Your task to perform on an android device: check android version Image 0: 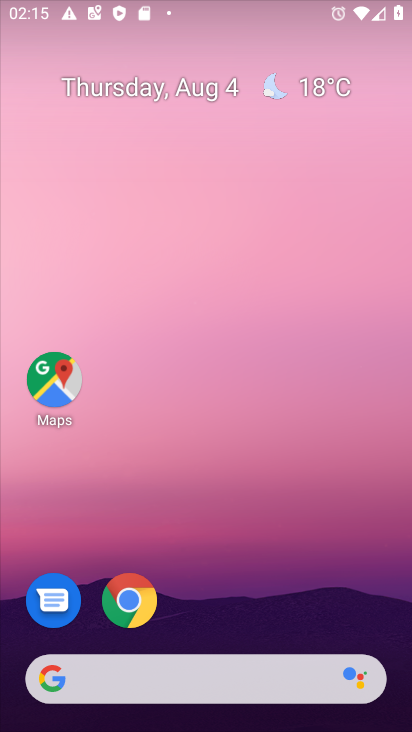
Step 0: drag from (143, 678) to (290, 206)
Your task to perform on an android device: check android version Image 1: 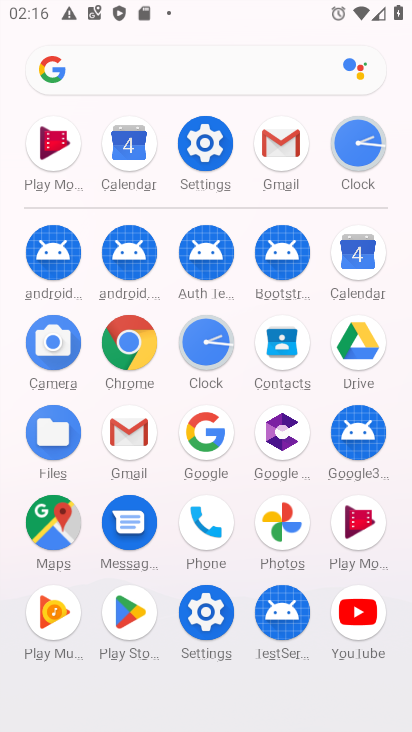
Step 1: click (213, 145)
Your task to perform on an android device: check android version Image 2: 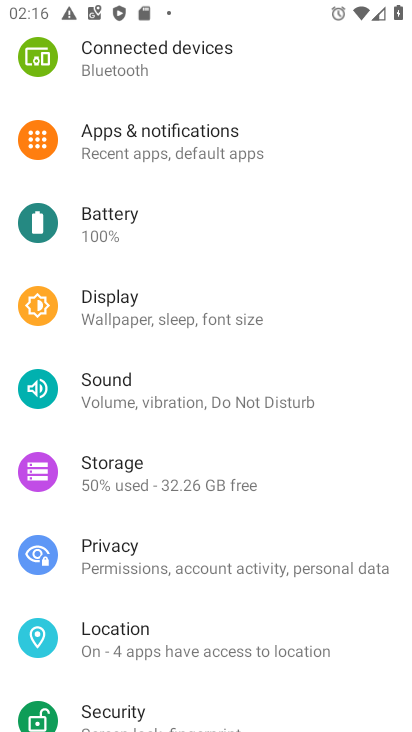
Step 2: drag from (251, 676) to (377, 13)
Your task to perform on an android device: check android version Image 3: 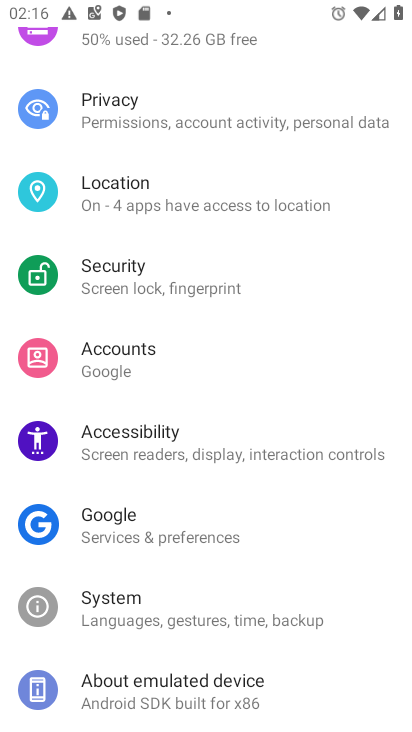
Step 3: drag from (248, 657) to (316, 177)
Your task to perform on an android device: check android version Image 4: 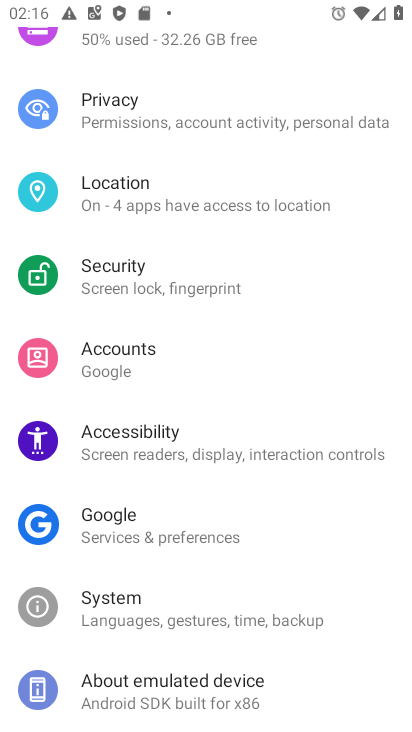
Step 4: click (136, 689)
Your task to perform on an android device: check android version Image 5: 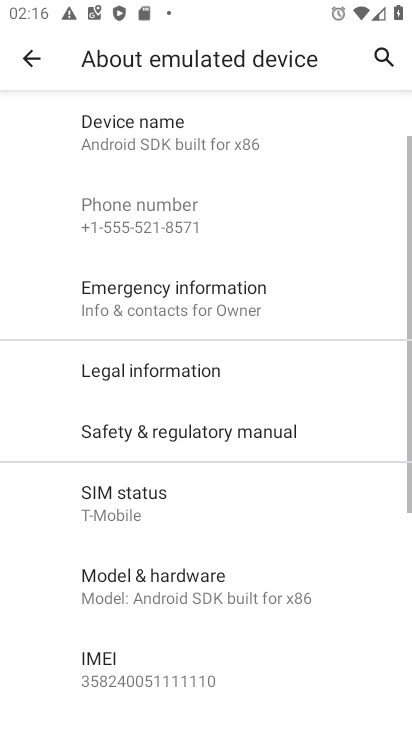
Step 5: drag from (219, 630) to (291, 231)
Your task to perform on an android device: check android version Image 6: 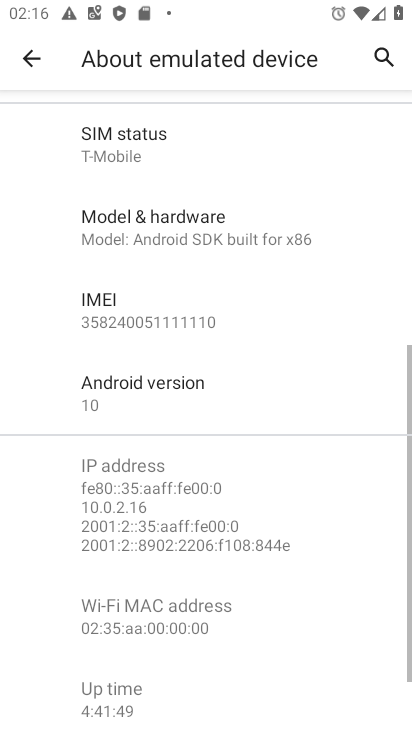
Step 6: click (140, 380)
Your task to perform on an android device: check android version Image 7: 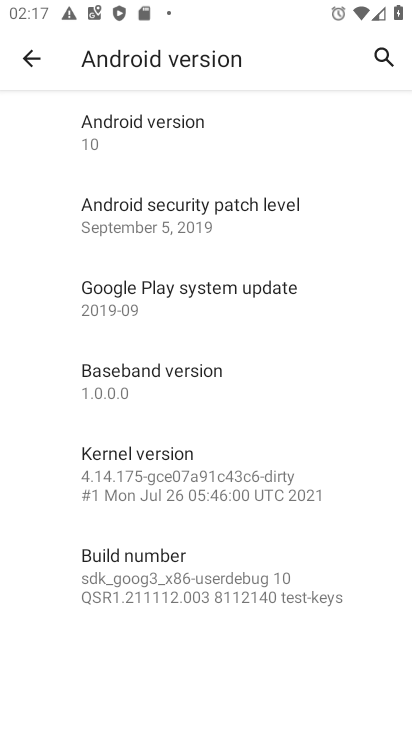
Step 7: task complete